Your task to perform on an android device: Open Google Chrome and open the bookmarks view Image 0: 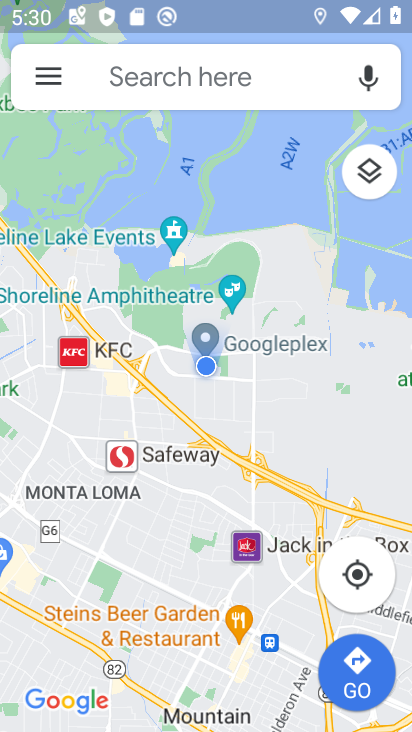
Step 0: press home button
Your task to perform on an android device: Open Google Chrome and open the bookmarks view Image 1: 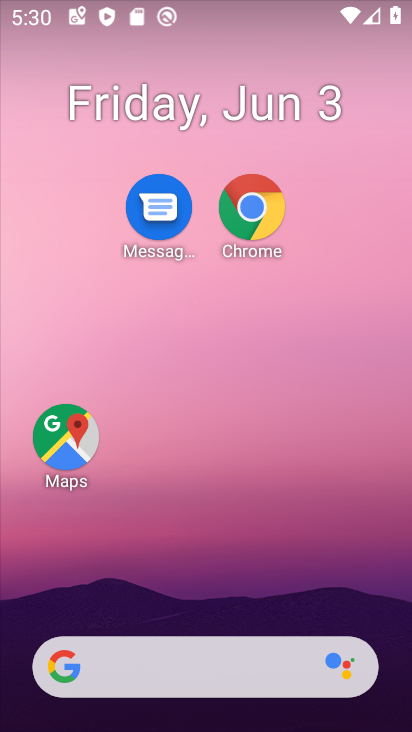
Step 1: click (254, 218)
Your task to perform on an android device: Open Google Chrome and open the bookmarks view Image 2: 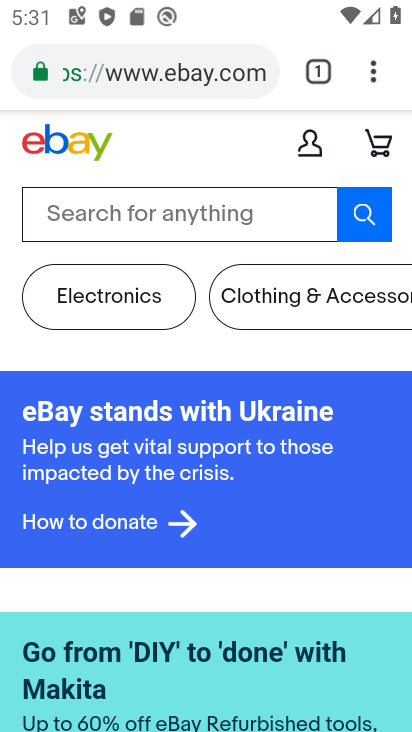
Step 2: click (373, 71)
Your task to perform on an android device: Open Google Chrome and open the bookmarks view Image 3: 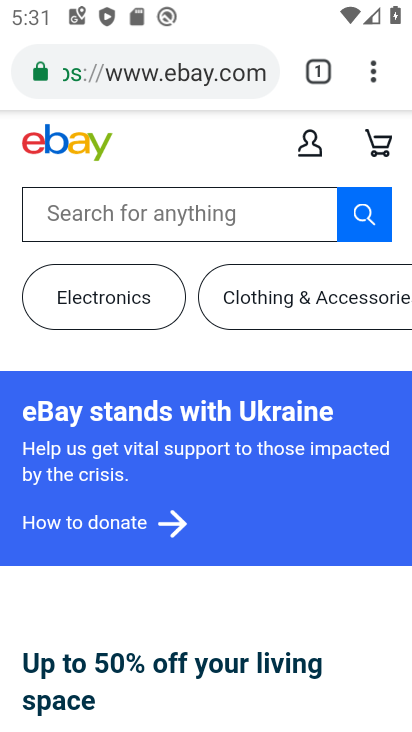
Step 3: click (375, 72)
Your task to perform on an android device: Open Google Chrome and open the bookmarks view Image 4: 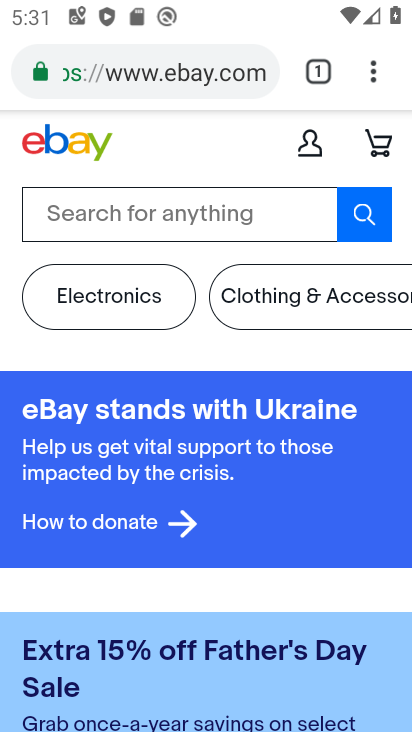
Step 4: click (370, 73)
Your task to perform on an android device: Open Google Chrome and open the bookmarks view Image 5: 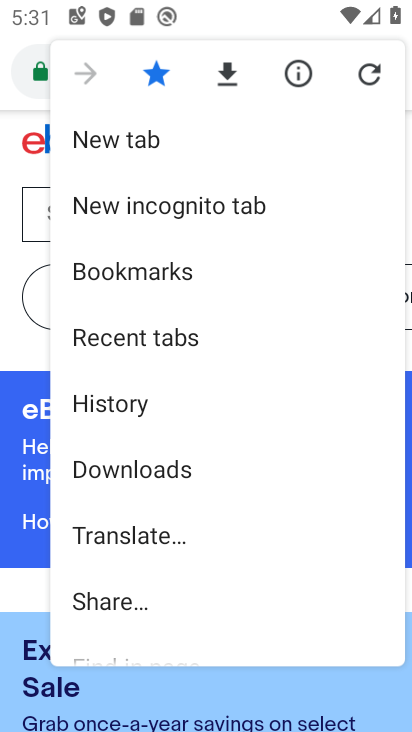
Step 5: click (162, 268)
Your task to perform on an android device: Open Google Chrome and open the bookmarks view Image 6: 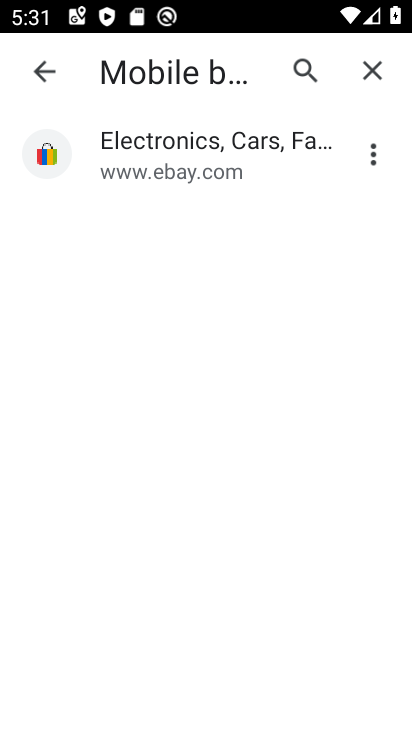
Step 6: task complete